Your task to perform on an android device: turn on data saver in the chrome app Image 0: 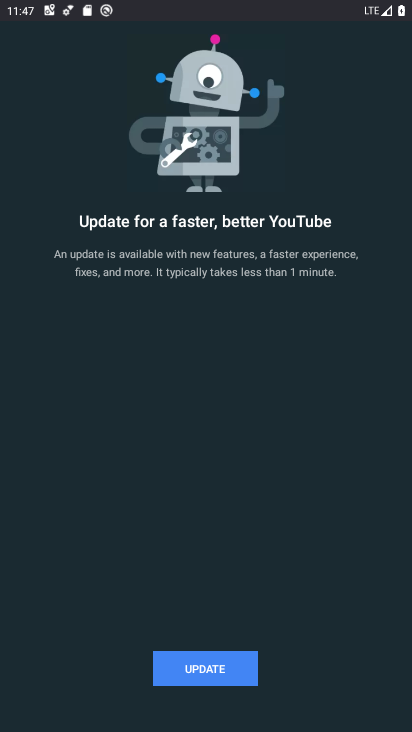
Step 0: press home button
Your task to perform on an android device: turn on data saver in the chrome app Image 1: 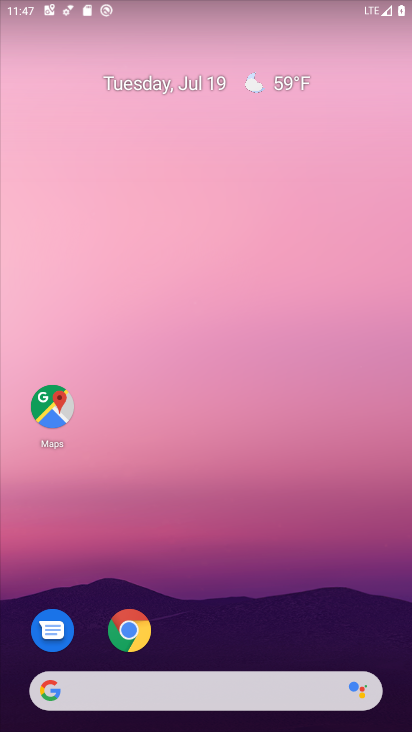
Step 1: click (132, 631)
Your task to perform on an android device: turn on data saver in the chrome app Image 2: 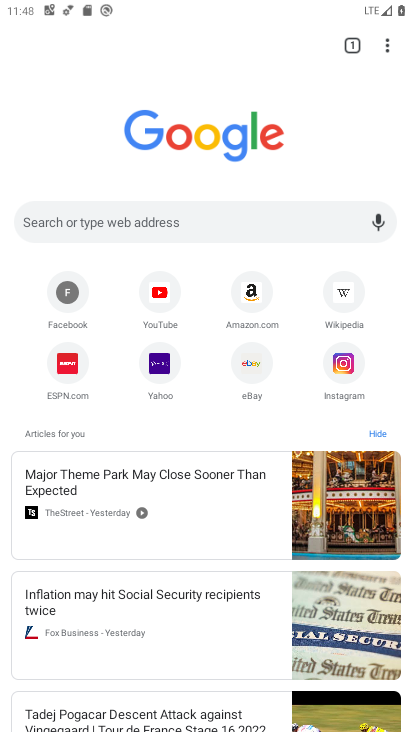
Step 2: click (386, 49)
Your task to perform on an android device: turn on data saver in the chrome app Image 3: 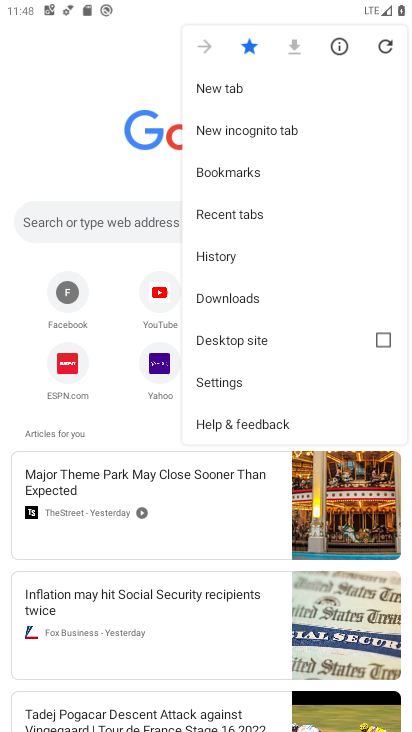
Step 3: click (231, 382)
Your task to perform on an android device: turn on data saver in the chrome app Image 4: 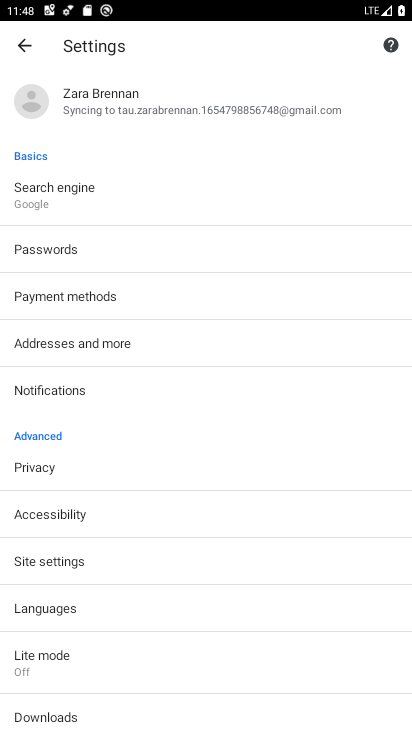
Step 4: click (41, 657)
Your task to perform on an android device: turn on data saver in the chrome app Image 5: 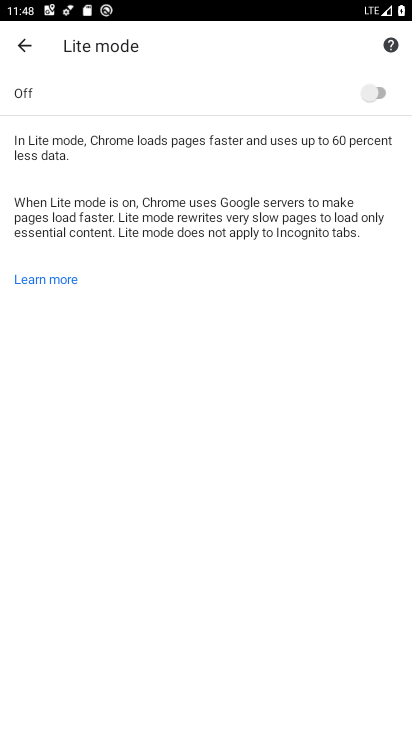
Step 5: click (380, 92)
Your task to perform on an android device: turn on data saver in the chrome app Image 6: 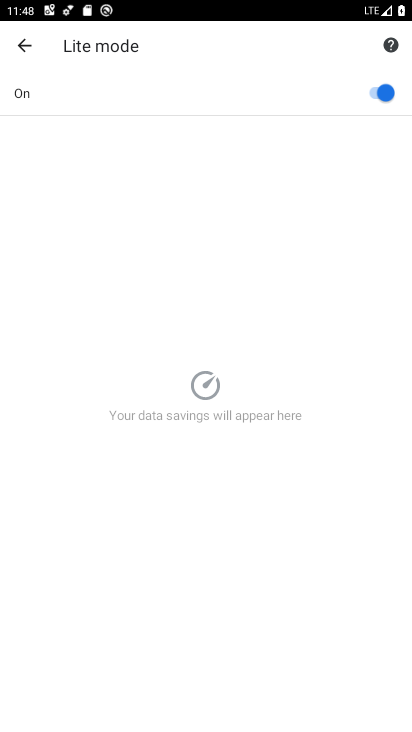
Step 6: task complete